Your task to perform on an android device: Open Chrome and go to settings Image 0: 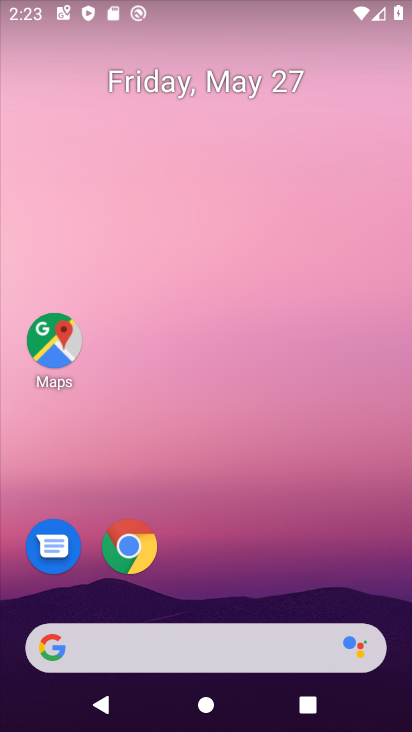
Step 0: click (43, 344)
Your task to perform on an android device: Open Chrome and go to settings Image 1: 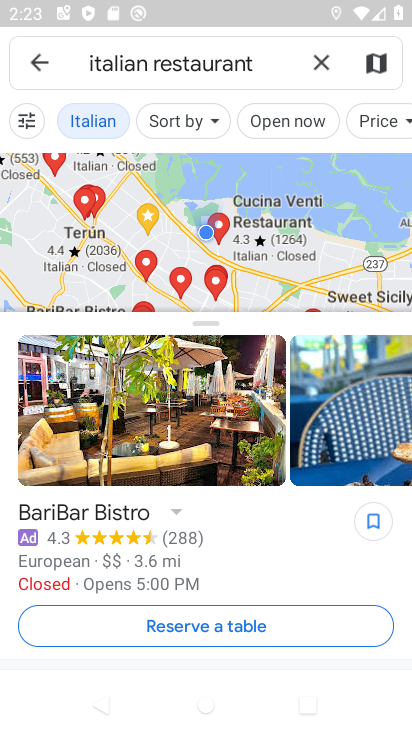
Step 1: click (323, 50)
Your task to perform on an android device: Open Chrome and go to settings Image 2: 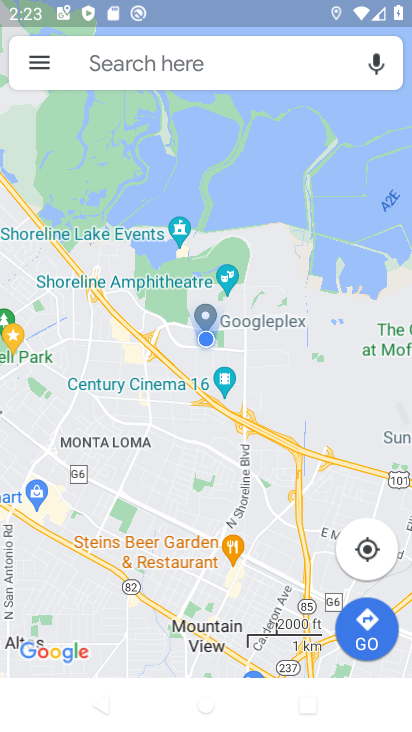
Step 2: click (247, 84)
Your task to perform on an android device: Open Chrome and go to settings Image 3: 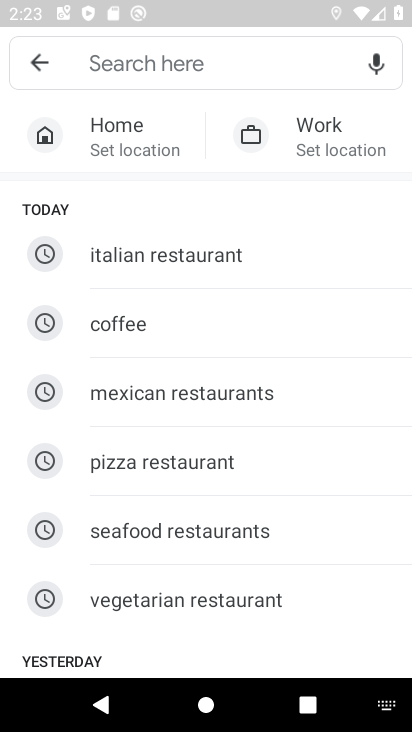
Step 3: click (145, 534)
Your task to perform on an android device: Open Chrome and go to settings Image 4: 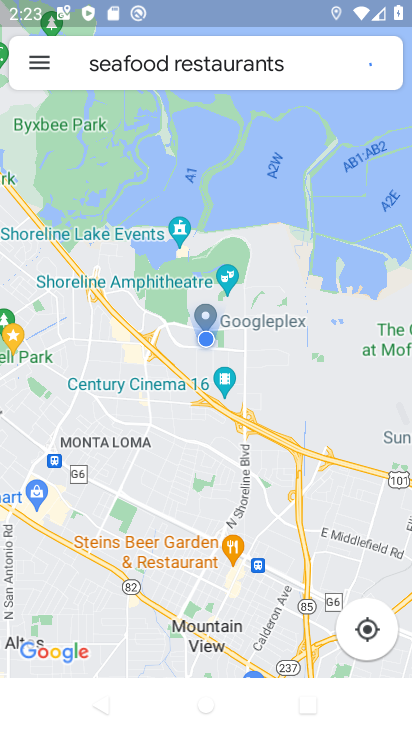
Step 4: task complete